Your task to perform on an android device: uninstall "Google Chrome" Image 0: 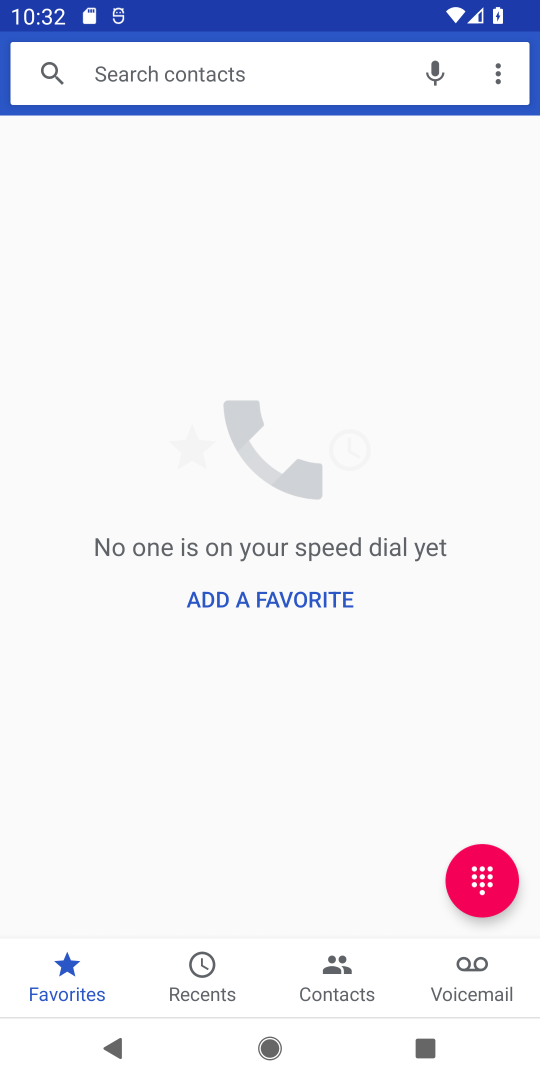
Step 0: press home button
Your task to perform on an android device: uninstall "Google Chrome" Image 1: 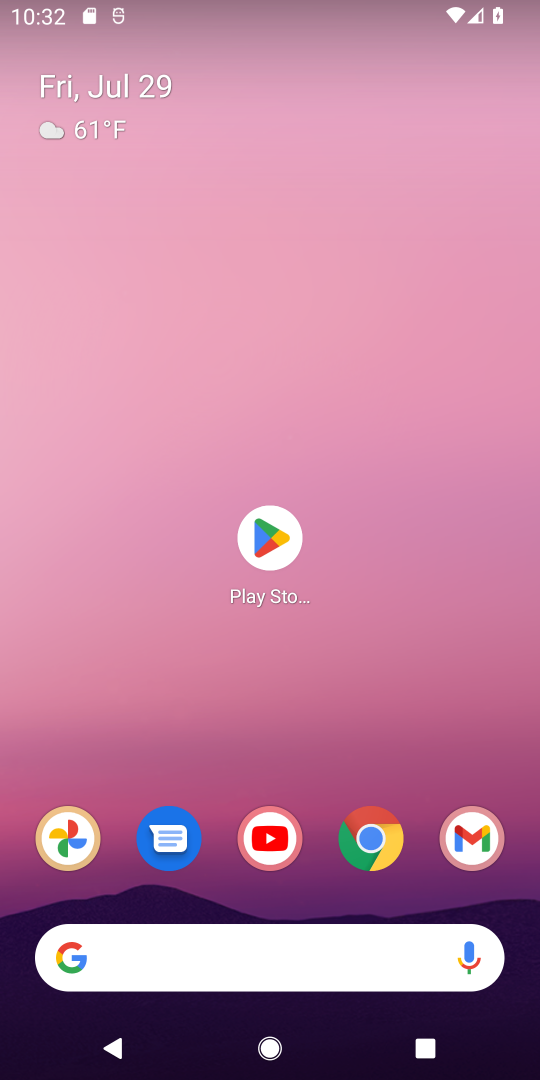
Step 1: press home button
Your task to perform on an android device: uninstall "Google Chrome" Image 2: 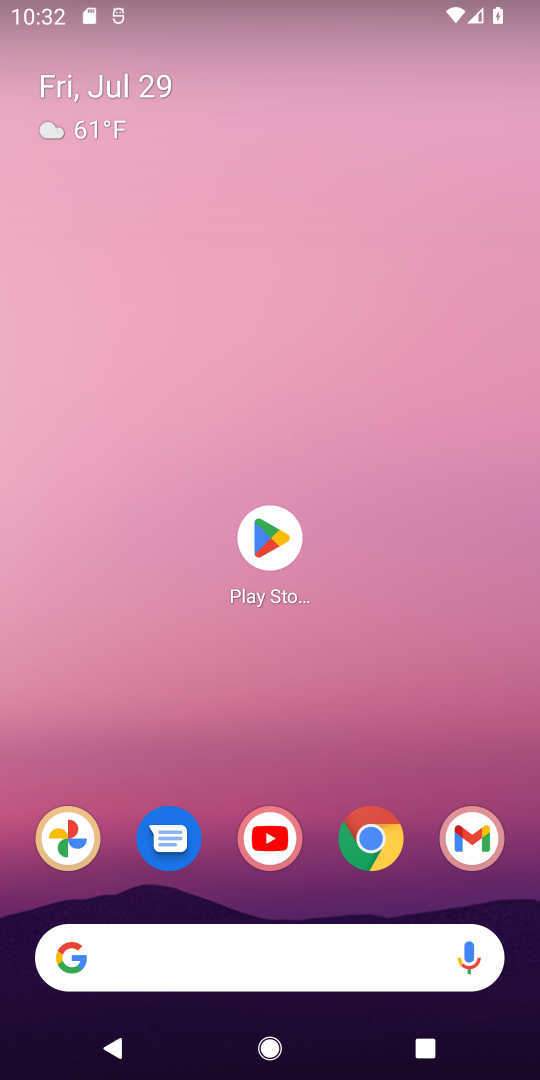
Step 2: click (263, 535)
Your task to perform on an android device: uninstall "Google Chrome" Image 3: 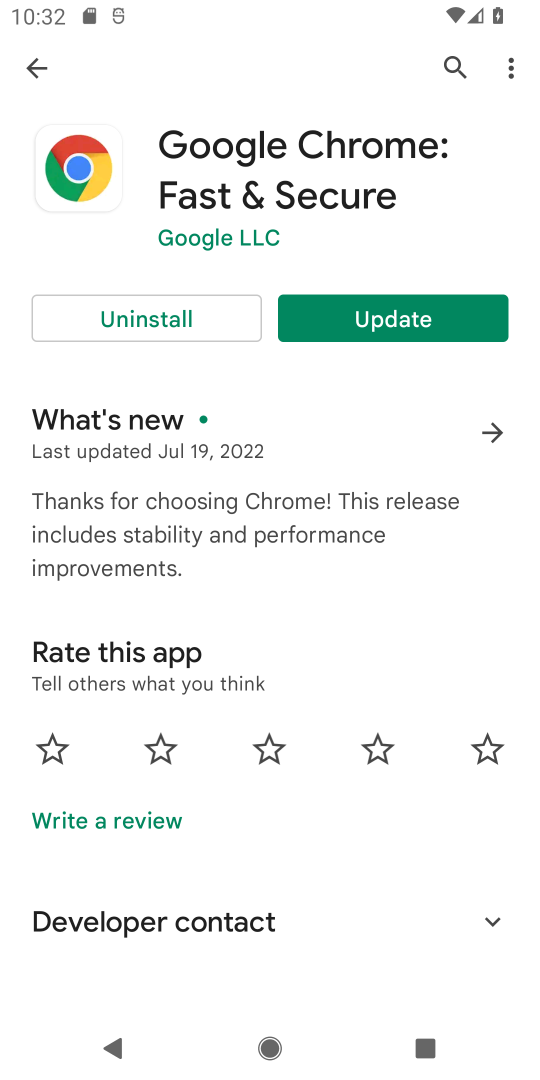
Step 3: click (450, 60)
Your task to perform on an android device: uninstall "Google Chrome" Image 4: 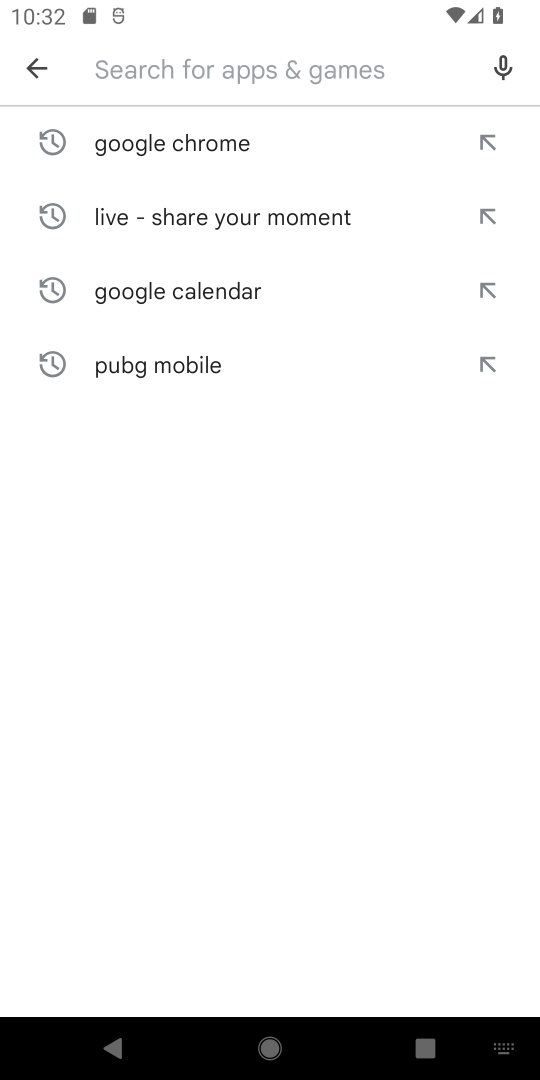
Step 4: press home button
Your task to perform on an android device: uninstall "Google Chrome" Image 5: 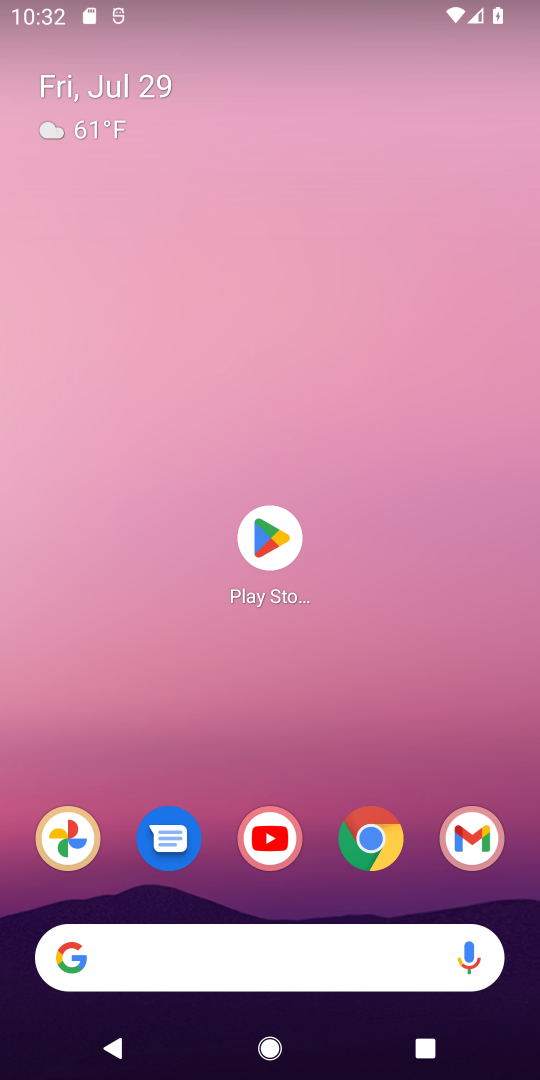
Step 5: click (277, 541)
Your task to perform on an android device: uninstall "Google Chrome" Image 6: 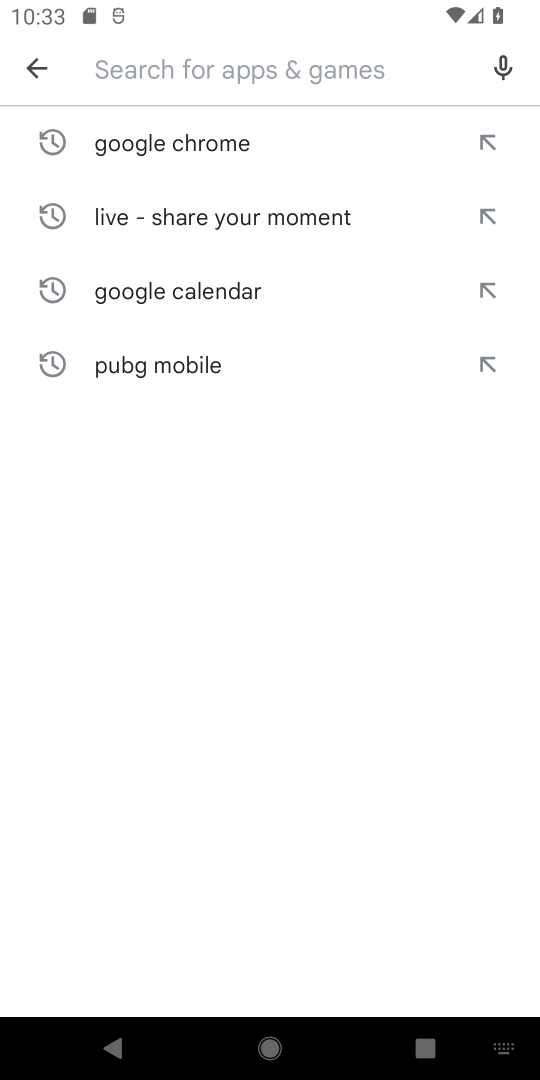
Step 6: click (197, 136)
Your task to perform on an android device: uninstall "Google Chrome" Image 7: 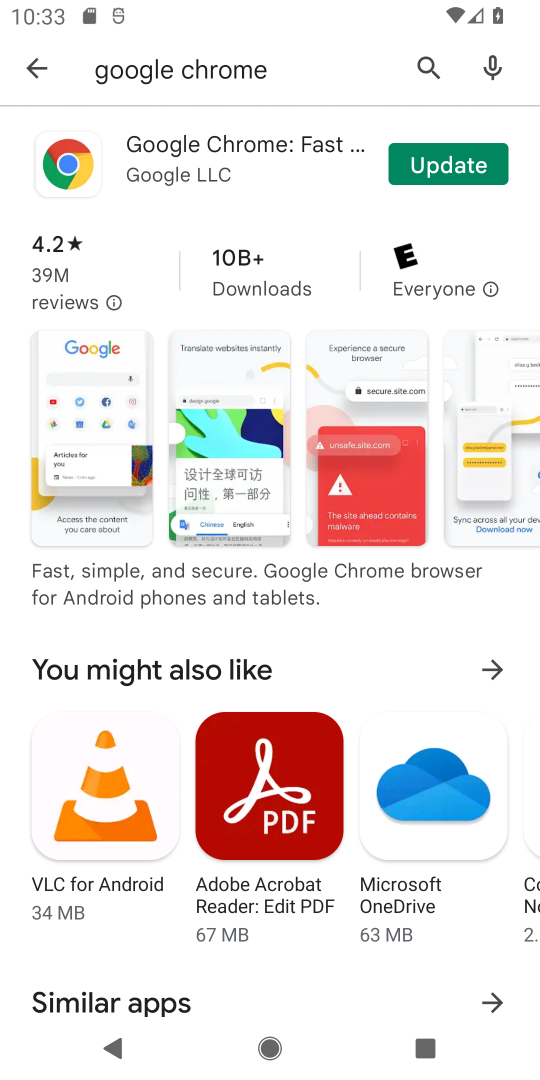
Step 7: click (111, 165)
Your task to perform on an android device: uninstall "Google Chrome" Image 8: 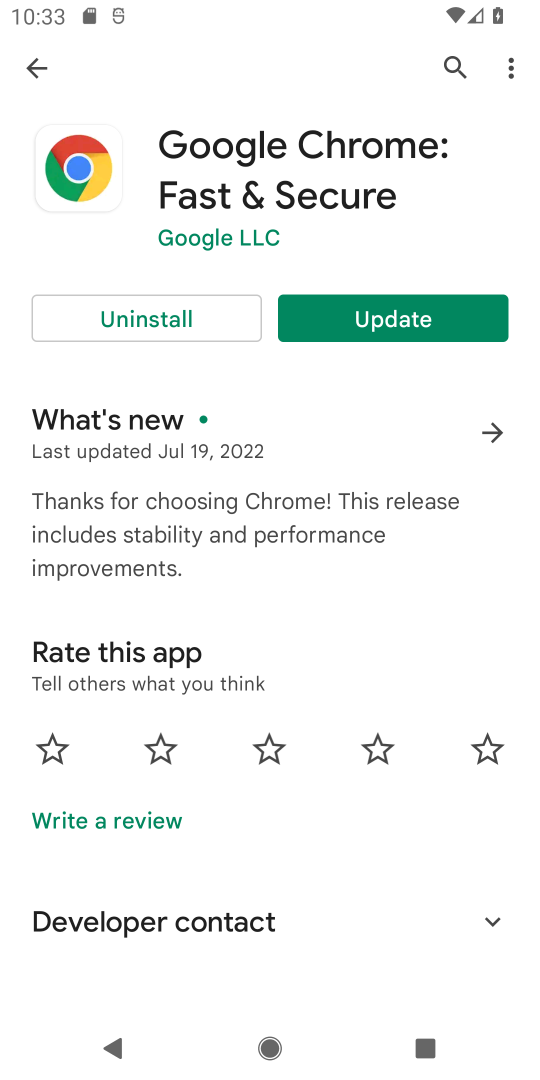
Step 8: click (180, 311)
Your task to perform on an android device: uninstall "Google Chrome" Image 9: 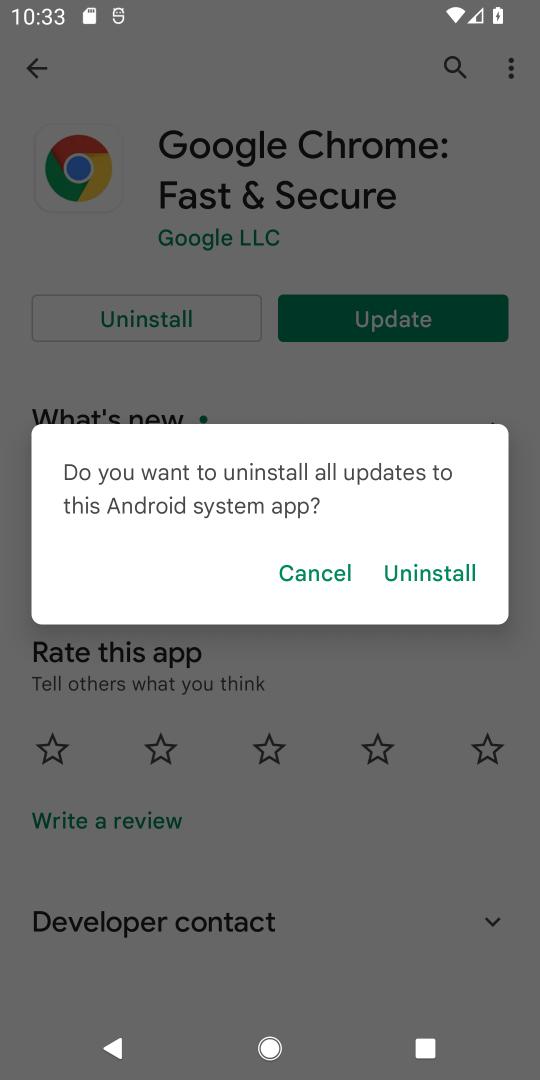
Step 9: click (394, 569)
Your task to perform on an android device: uninstall "Google Chrome" Image 10: 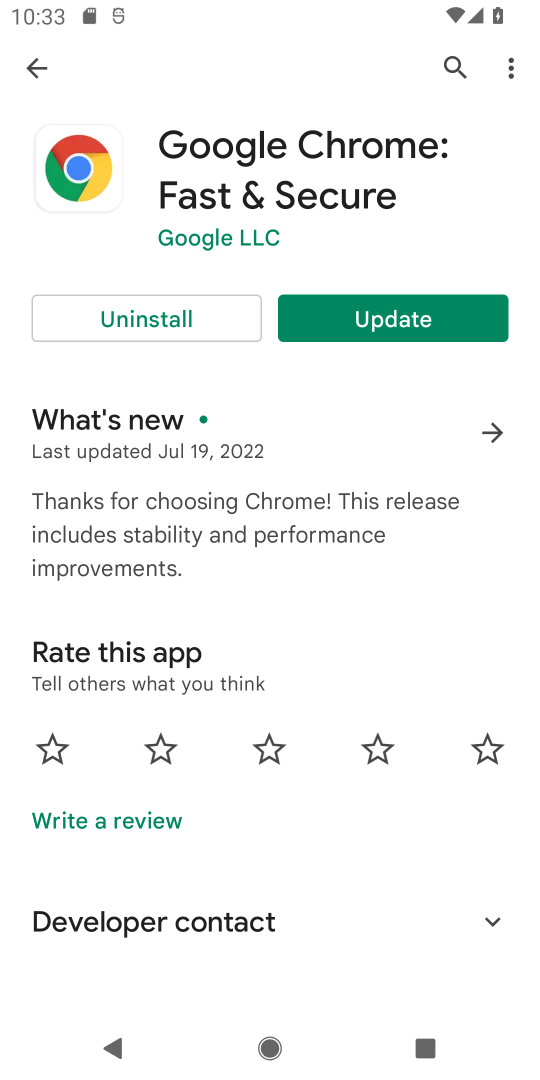
Step 10: click (187, 312)
Your task to perform on an android device: uninstall "Google Chrome" Image 11: 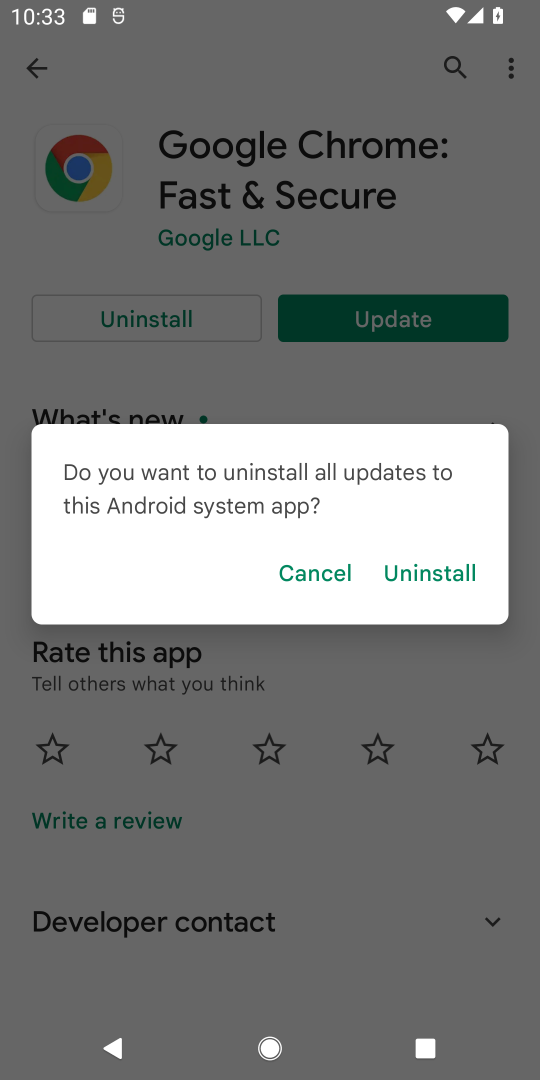
Step 11: click (425, 569)
Your task to perform on an android device: uninstall "Google Chrome" Image 12: 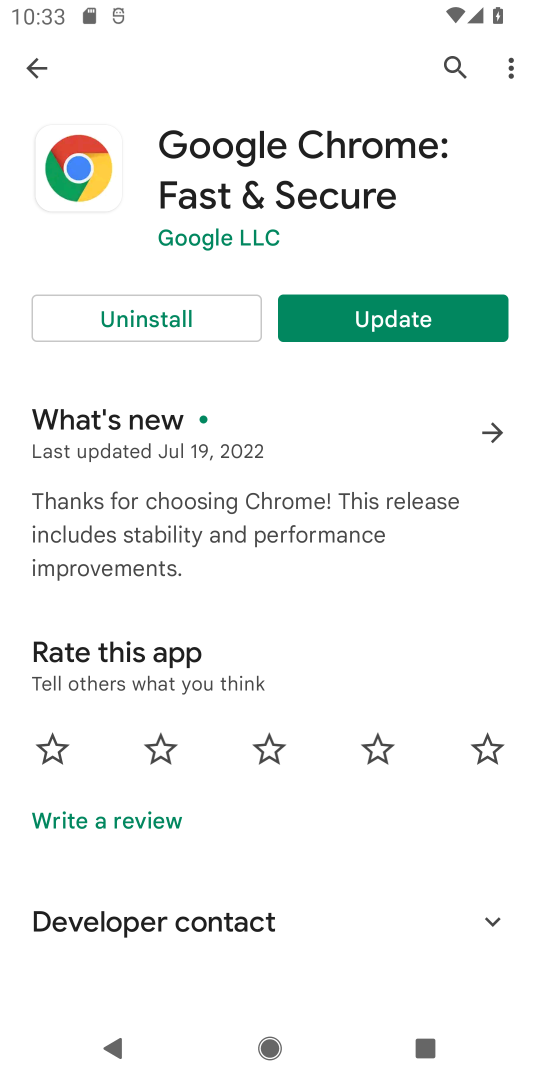
Step 12: task complete